Your task to perform on an android device: turn off javascript in the chrome app Image 0: 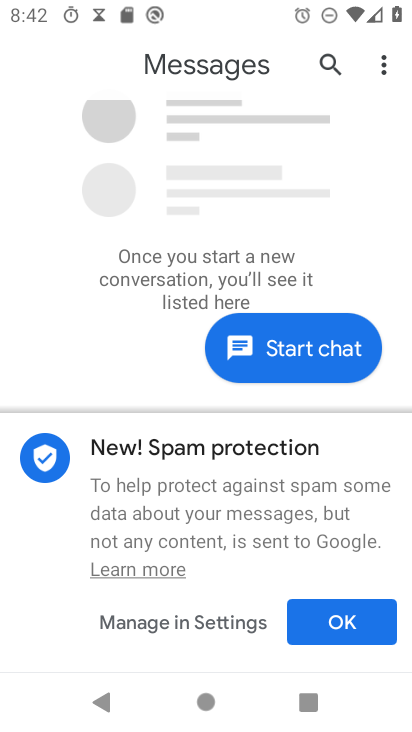
Step 0: press home button
Your task to perform on an android device: turn off javascript in the chrome app Image 1: 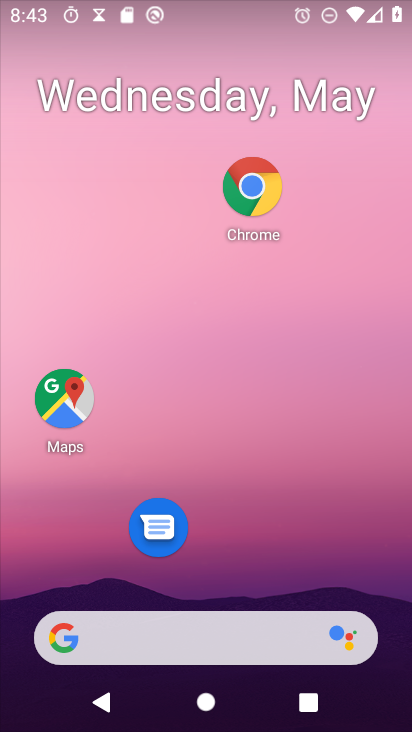
Step 1: drag from (242, 576) to (185, 91)
Your task to perform on an android device: turn off javascript in the chrome app Image 2: 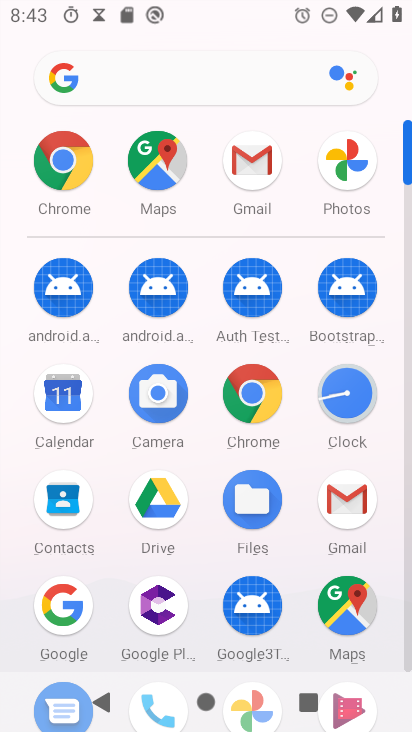
Step 2: click (70, 155)
Your task to perform on an android device: turn off javascript in the chrome app Image 3: 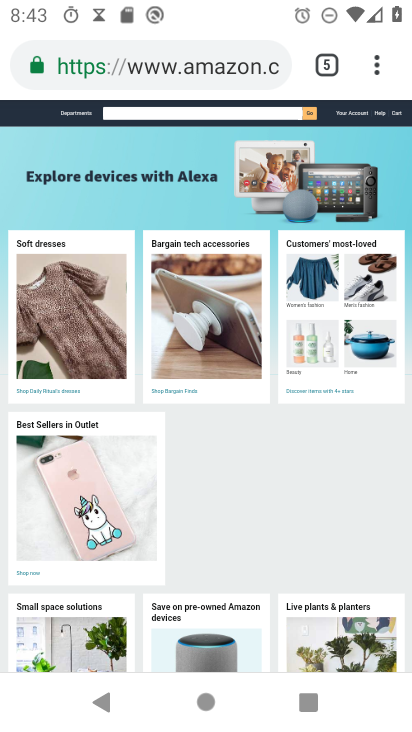
Step 3: click (373, 66)
Your task to perform on an android device: turn off javascript in the chrome app Image 4: 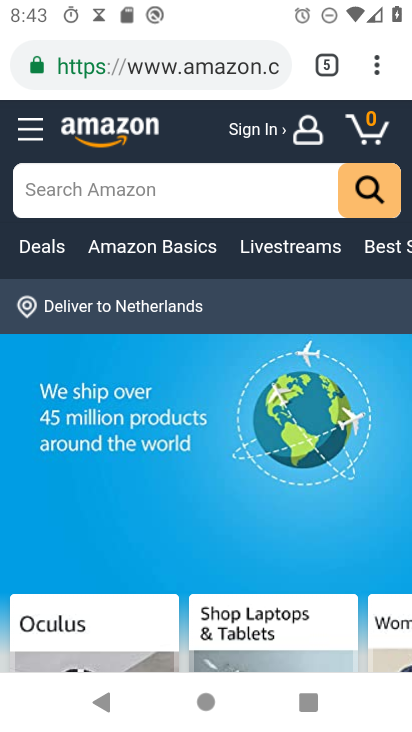
Step 4: click (369, 57)
Your task to perform on an android device: turn off javascript in the chrome app Image 5: 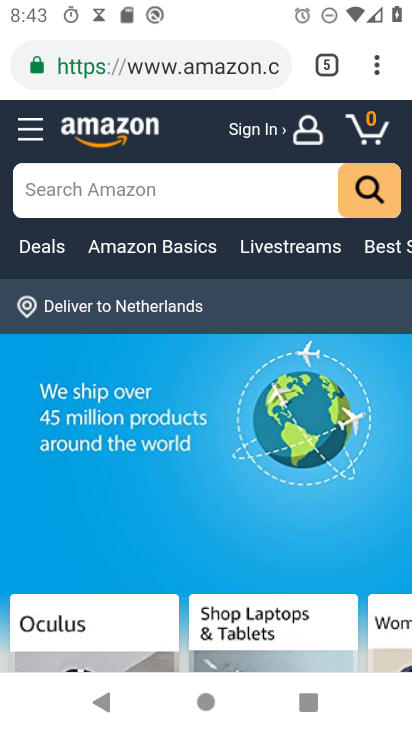
Step 5: click (377, 64)
Your task to perform on an android device: turn off javascript in the chrome app Image 6: 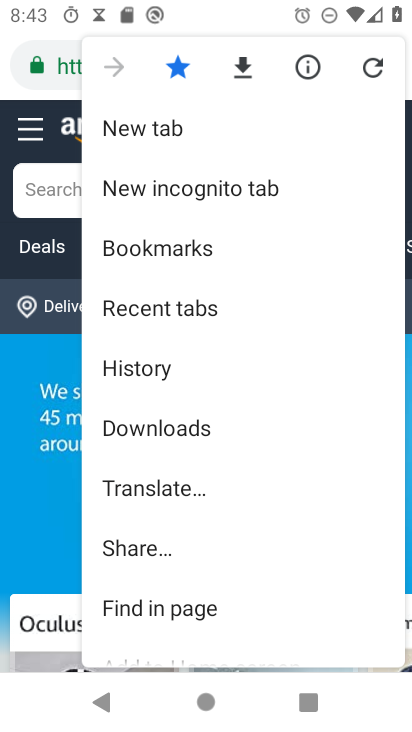
Step 6: drag from (270, 568) to (275, 204)
Your task to perform on an android device: turn off javascript in the chrome app Image 7: 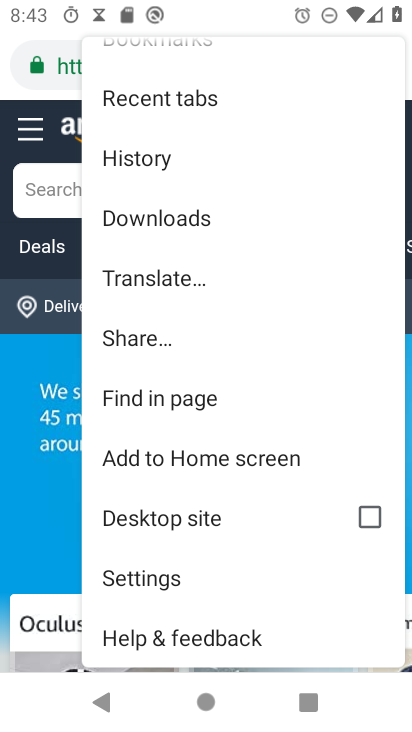
Step 7: click (156, 578)
Your task to perform on an android device: turn off javascript in the chrome app Image 8: 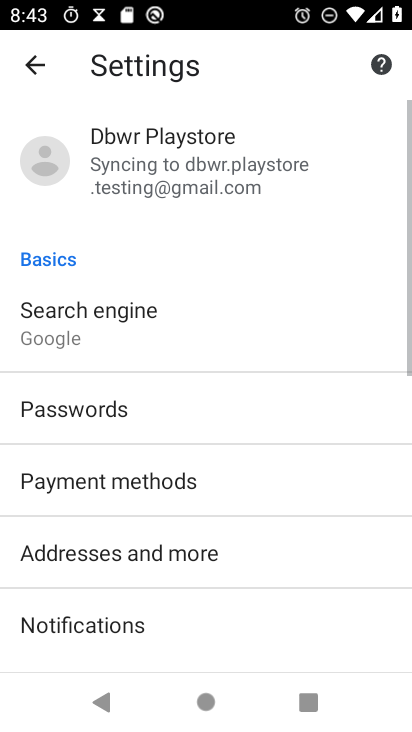
Step 8: drag from (291, 609) to (291, 253)
Your task to perform on an android device: turn off javascript in the chrome app Image 9: 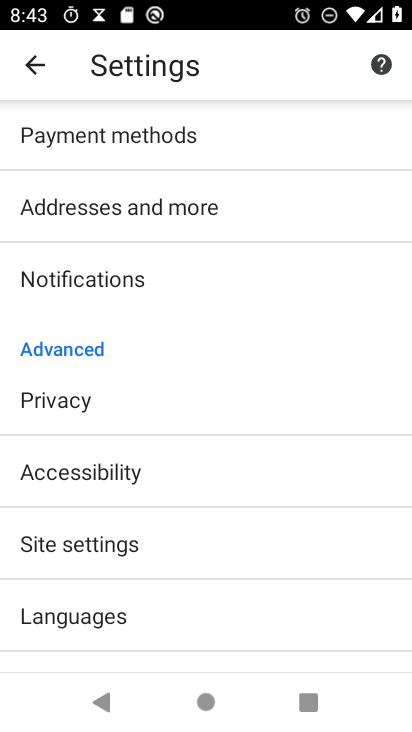
Step 9: drag from (261, 562) to (280, 251)
Your task to perform on an android device: turn off javascript in the chrome app Image 10: 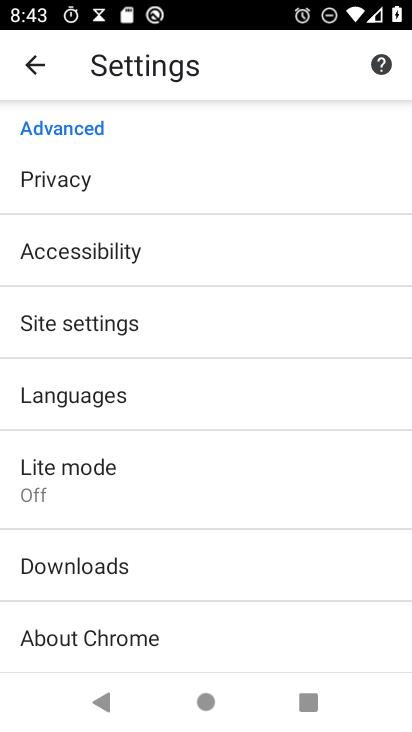
Step 10: drag from (250, 609) to (267, 229)
Your task to perform on an android device: turn off javascript in the chrome app Image 11: 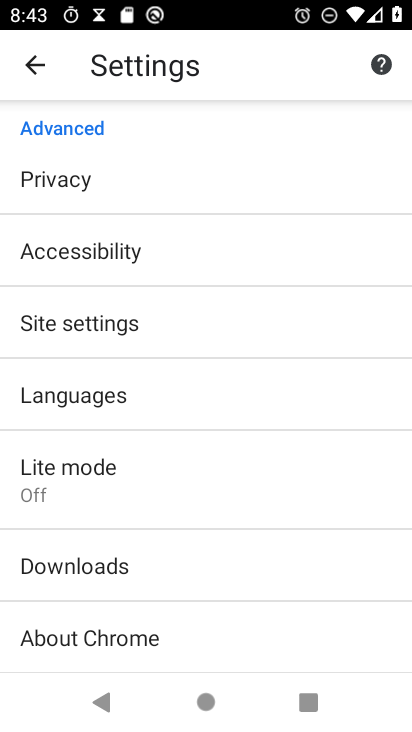
Step 11: click (76, 318)
Your task to perform on an android device: turn off javascript in the chrome app Image 12: 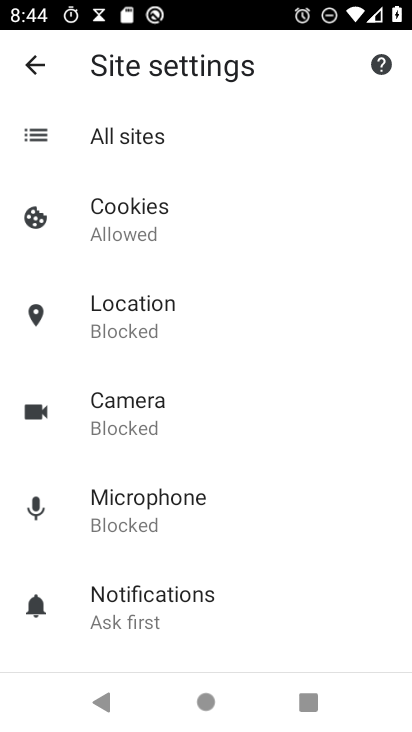
Step 12: drag from (276, 608) to (272, 186)
Your task to perform on an android device: turn off javascript in the chrome app Image 13: 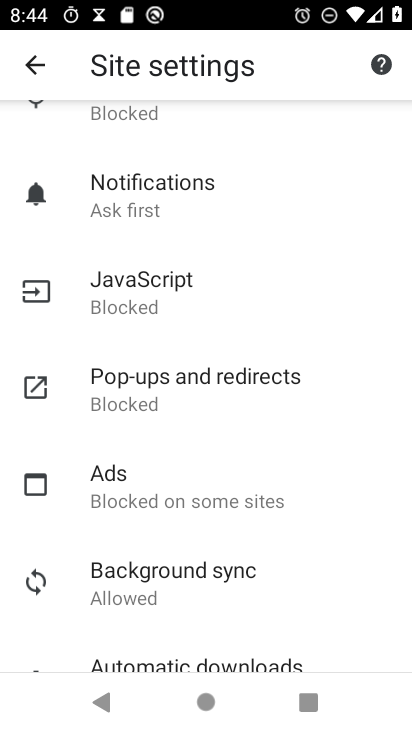
Step 13: click (268, 605)
Your task to perform on an android device: turn off javascript in the chrome app Image 14: 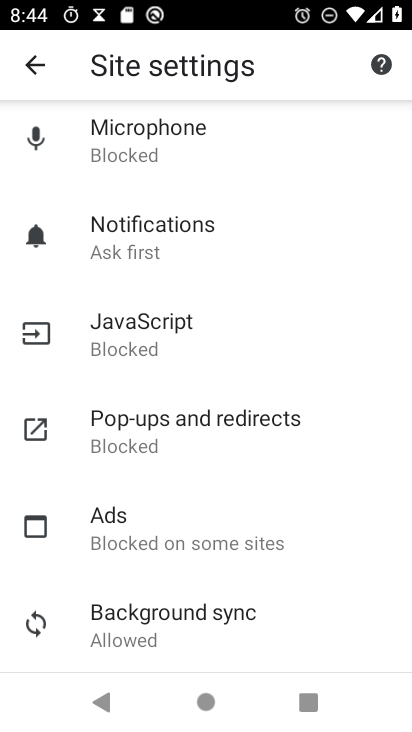
Step 14: click (146, 317)
Your task to perform on an android device: turn off javascript in the chrome app Image 15: 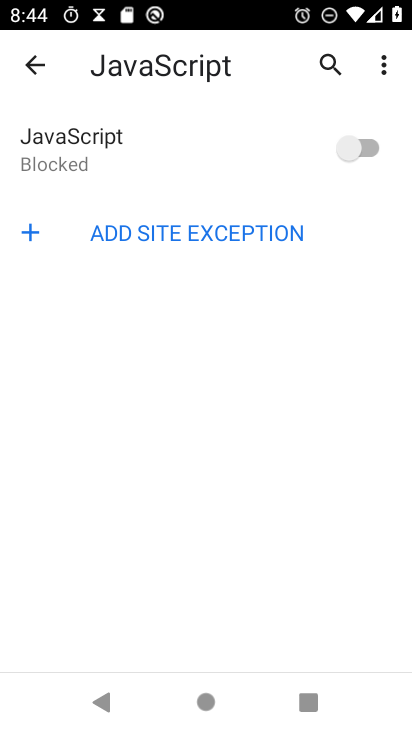
Step 15: click (363, 143)
Your task to perform on an android device: turn off javascript in the chrome app Image 16: 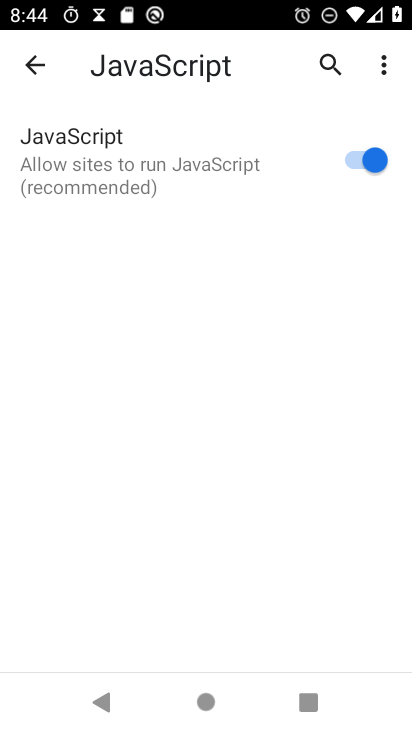
Step 16: click (353, 157)
Your task to perform on an android device: turn off javascript in the chrome app Image 17: 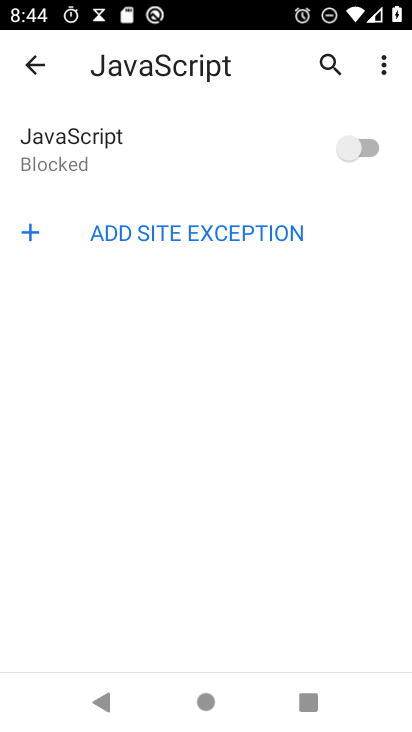
Step 17: task complete